Your task to perform on an android device: Show me recent news Image 0: 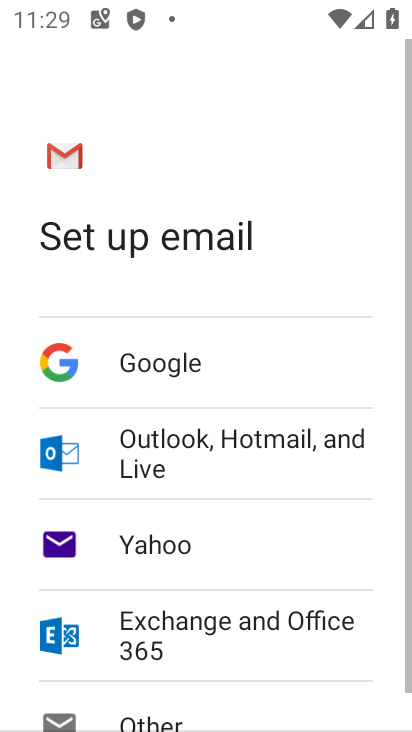
Step 0: press home button
Your task to perform on an android device: Show me recent news Image 1: 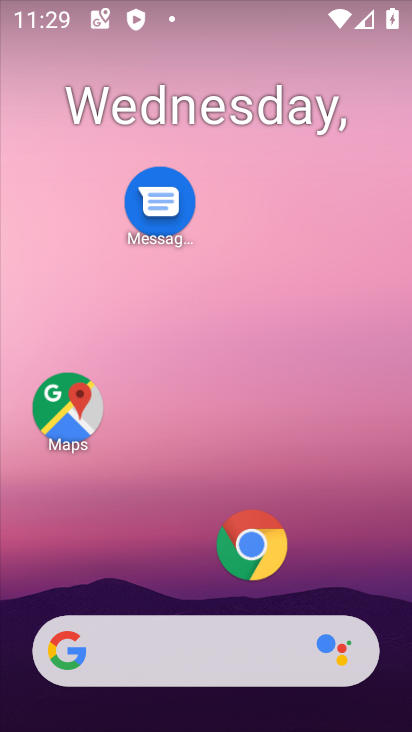
Step 1: drag from (186, 586) to (185, 223)
Your task to perform on an android device: Show me recent news Image 2: 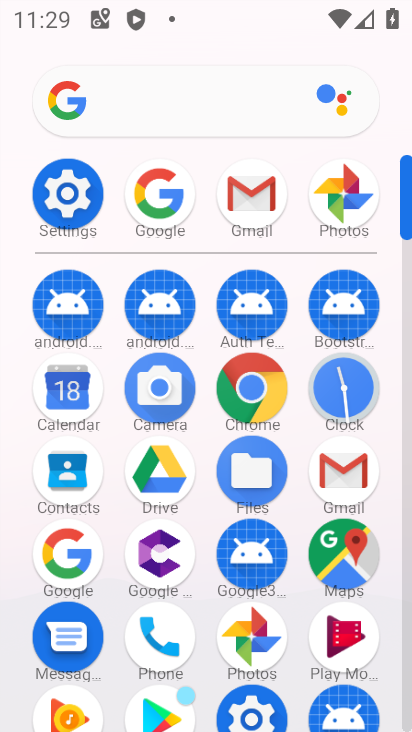
Step 2: click (169, 220)
Your task to perform on an android device: Show me recent news Image 3: 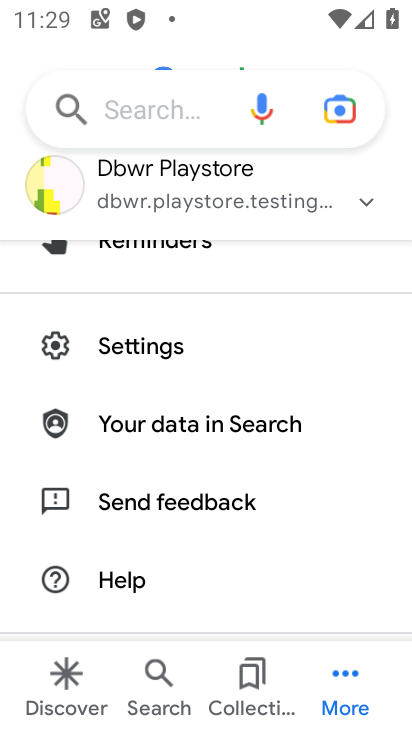
Step 3: click (150, 115)
Your task to perform on an android device: Show me recent news Image 4: 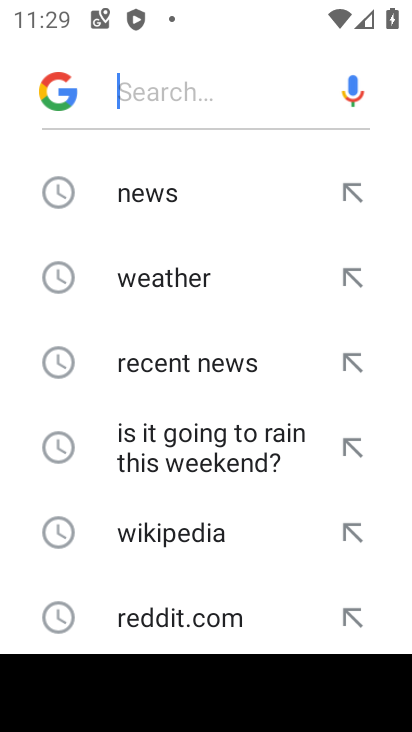
Step 4: click (118, 207)
Your task to perform on an android device: Show me recent news Image 5: 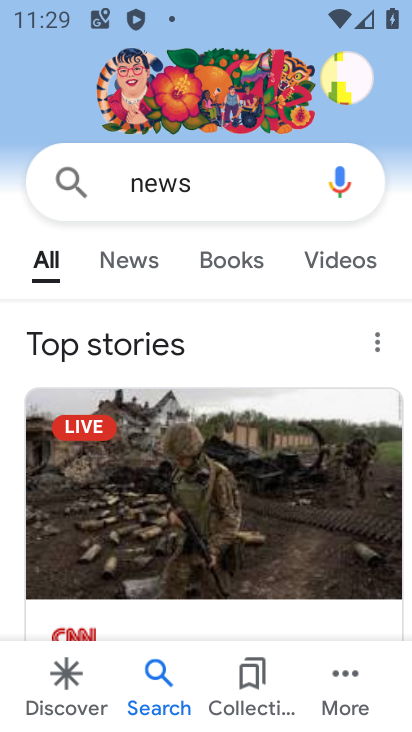
Step 5: click (139, 260)
Your task to perform on an android device: Show me recent news Image 6: 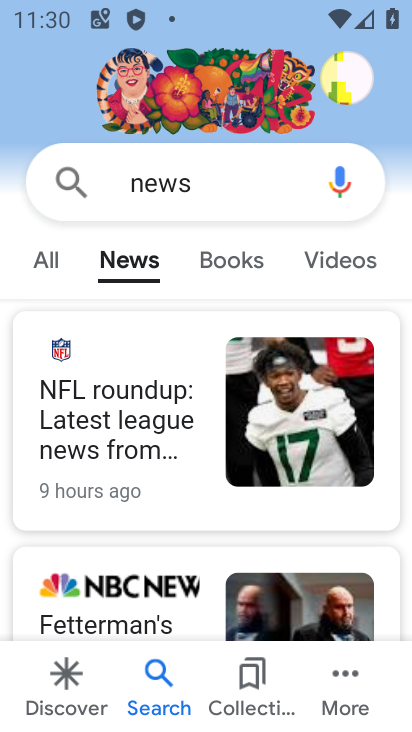
Step 6: task complete